Your task to perform on an android device: Turn on the flashlight Image 0: 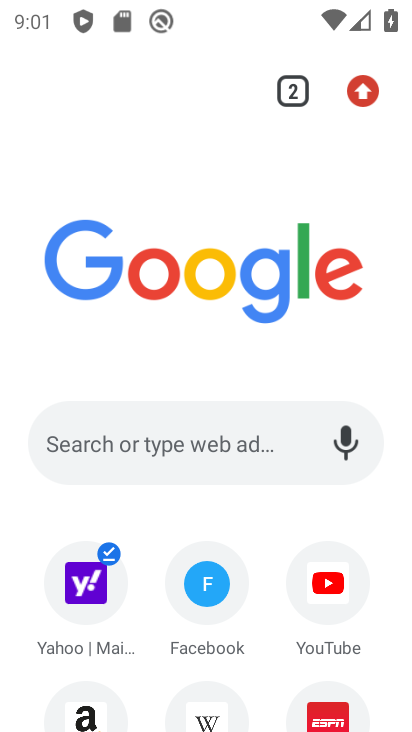
Step 0: press home button
Your task to perform on an android device: Turn on the flashlight Image 1: 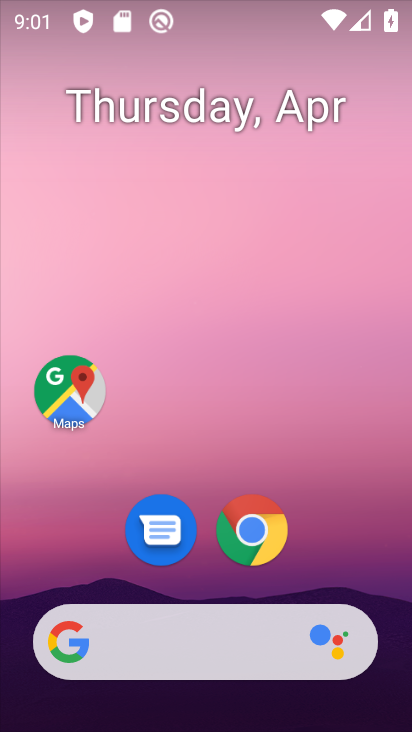
Step 1: task complete